Your task to perform on an android device: see creations saved in the google photos Image 0: 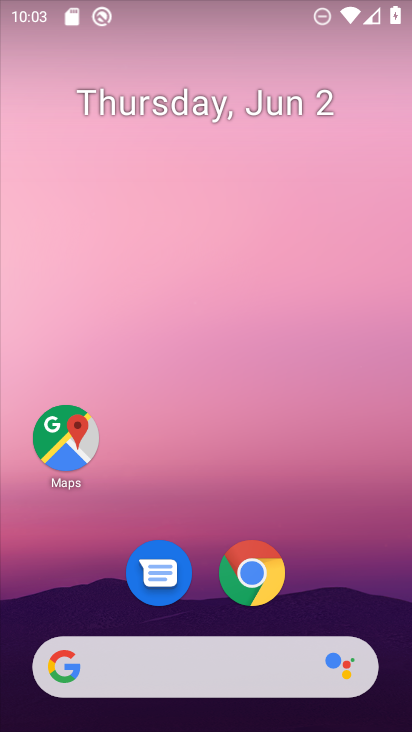
Step 0: drag from (357, 461) to (339, 103)
Your task to perform on an android device: see creations saved in the google photos Image 1: 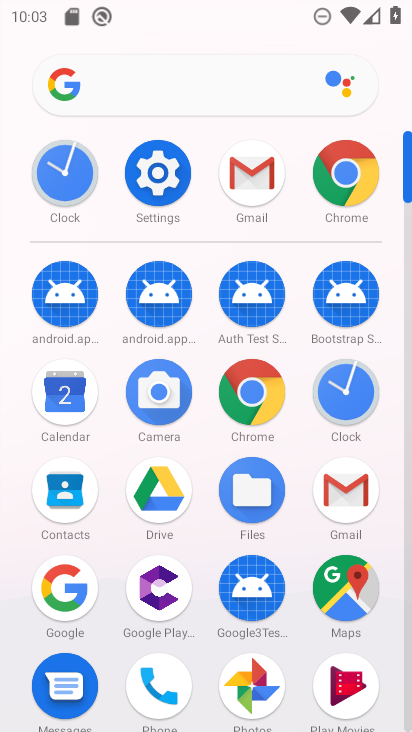
Step 1: click (250, 673)
Your task to perform on an android device: see creations saved in the google photos Image 2: 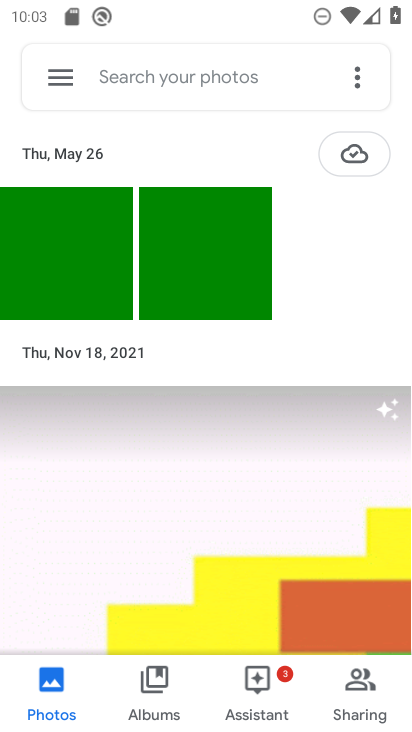
Step 2: click (56, 66)
Your task to perform on an android device: see creations saved in the google photos Image 3: 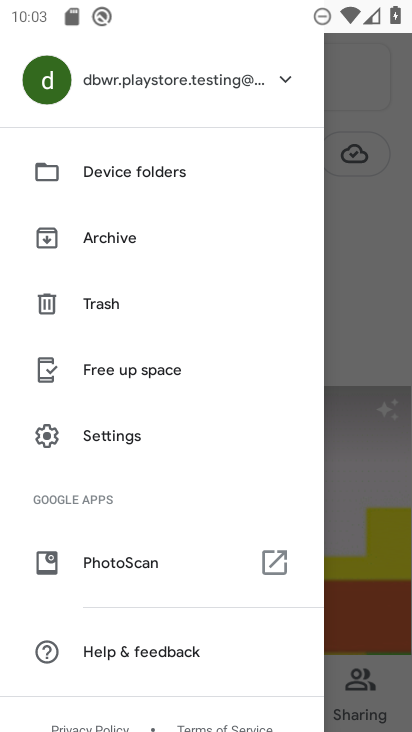
Step 3: click (352, 139)
Your task to perform on an android device: see creations saved in the google photos Image 4: 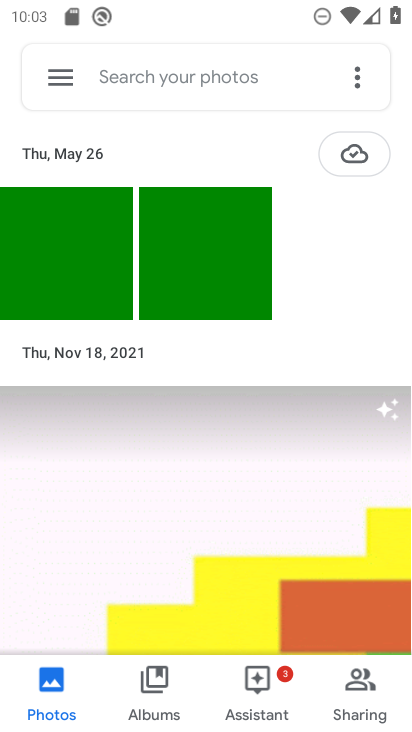
Step 4: click (352, 685)
Your task to perform on an android device: see creations saved in the google photos Image 5: 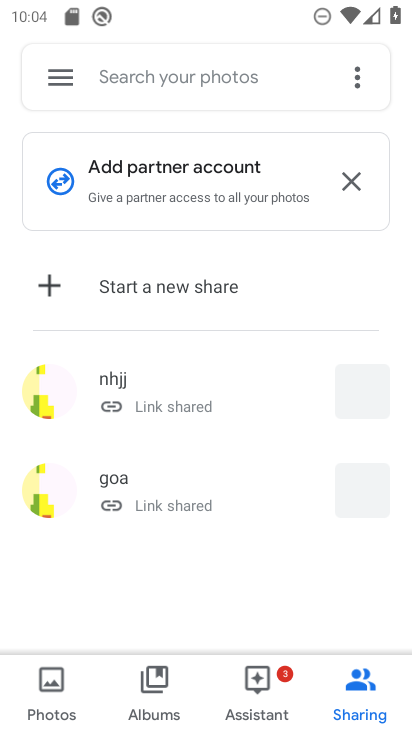
Step 5: click (279, 694)
Your task to perform on an android device: see creations saved in the google photos Image 6: 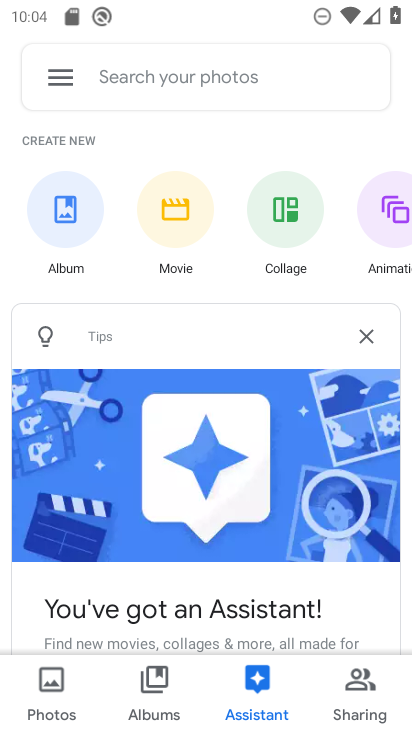
Step 6: task complete